Your task to perform on an android device: turn off sleep mode Image 0: 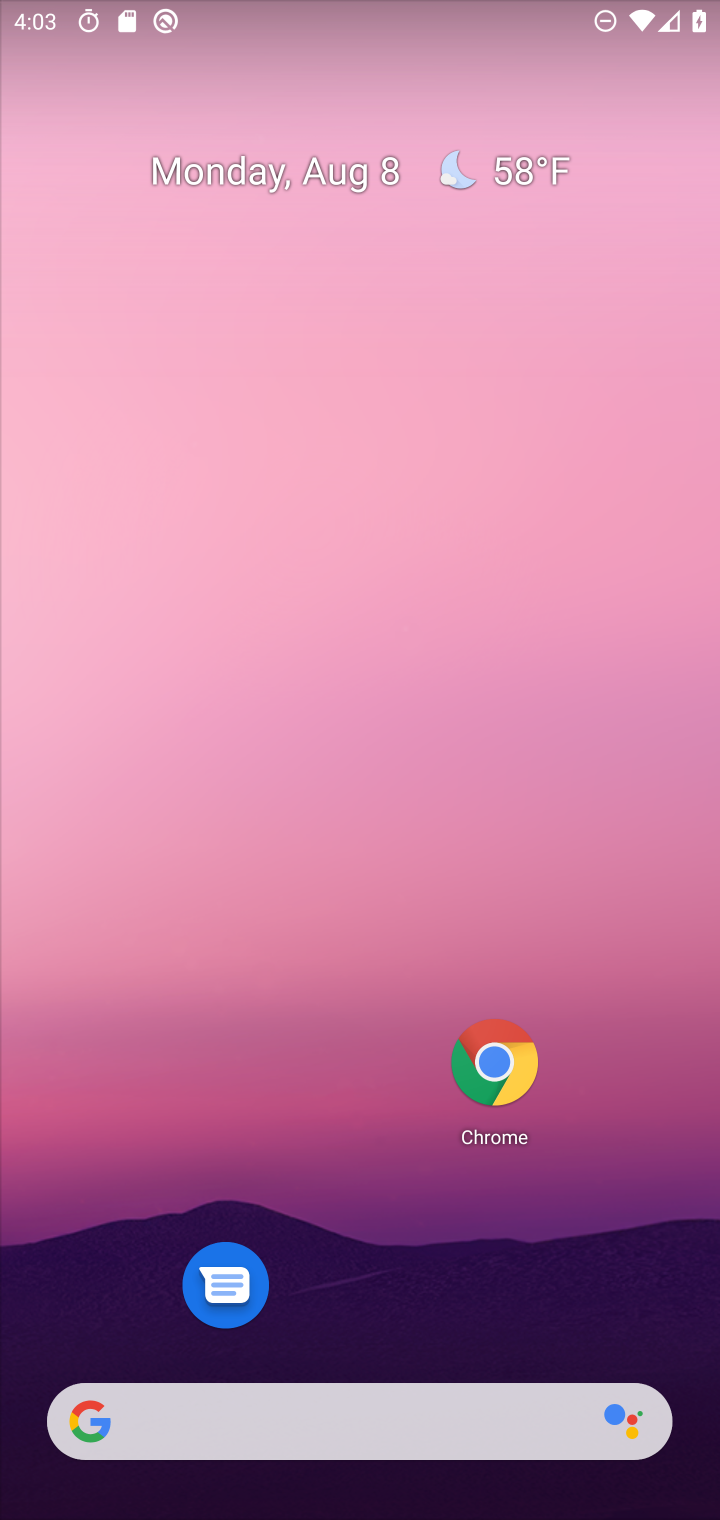
Step 0: drag from (363, 1040) to (310, 62)
Your task to perform on an android device: turn off sleep mode Image 1: 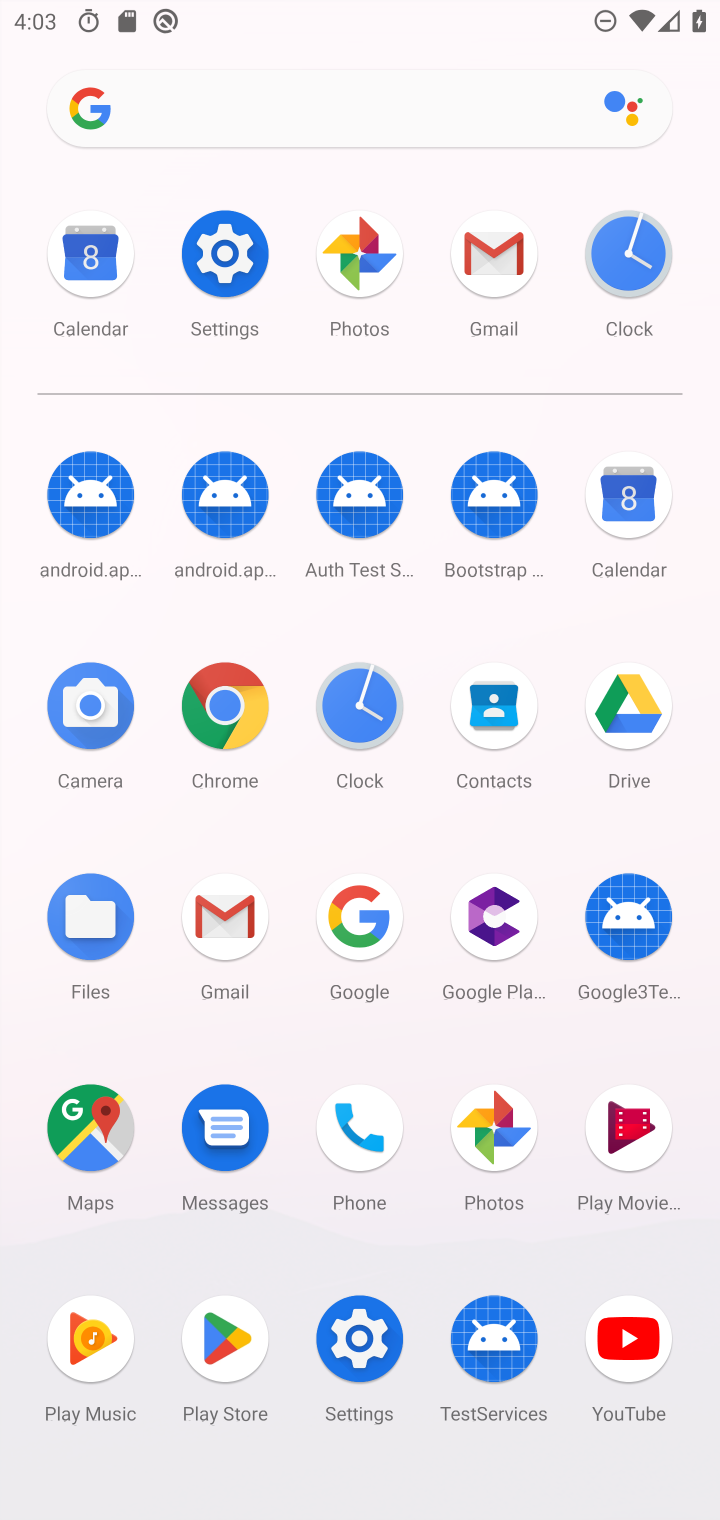
Step 1: click (222, 233)
Your task to perform on an android device: turn off sleep mode Image 2: 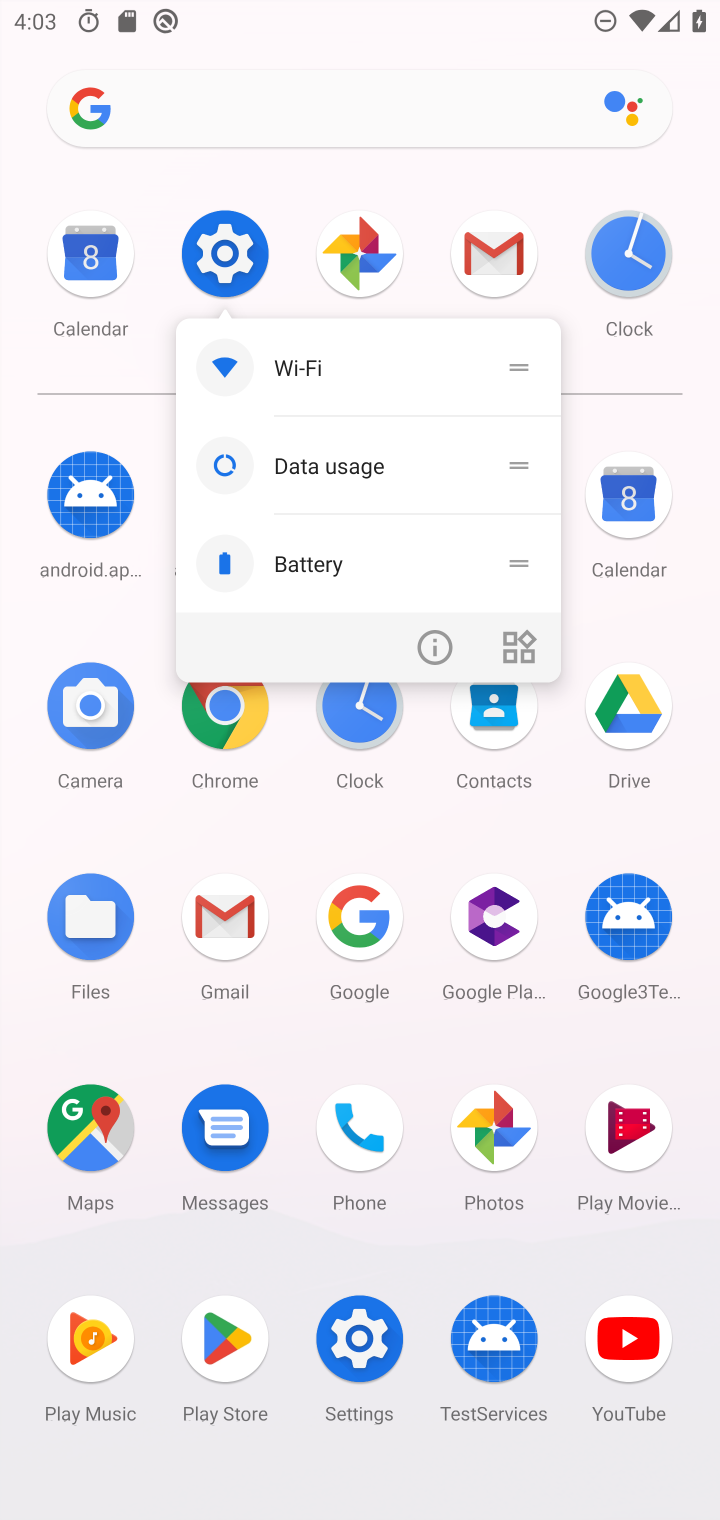
Step 2: click (224, 240)
Your task to perform on an android device: turn off sleep mode Image 3: 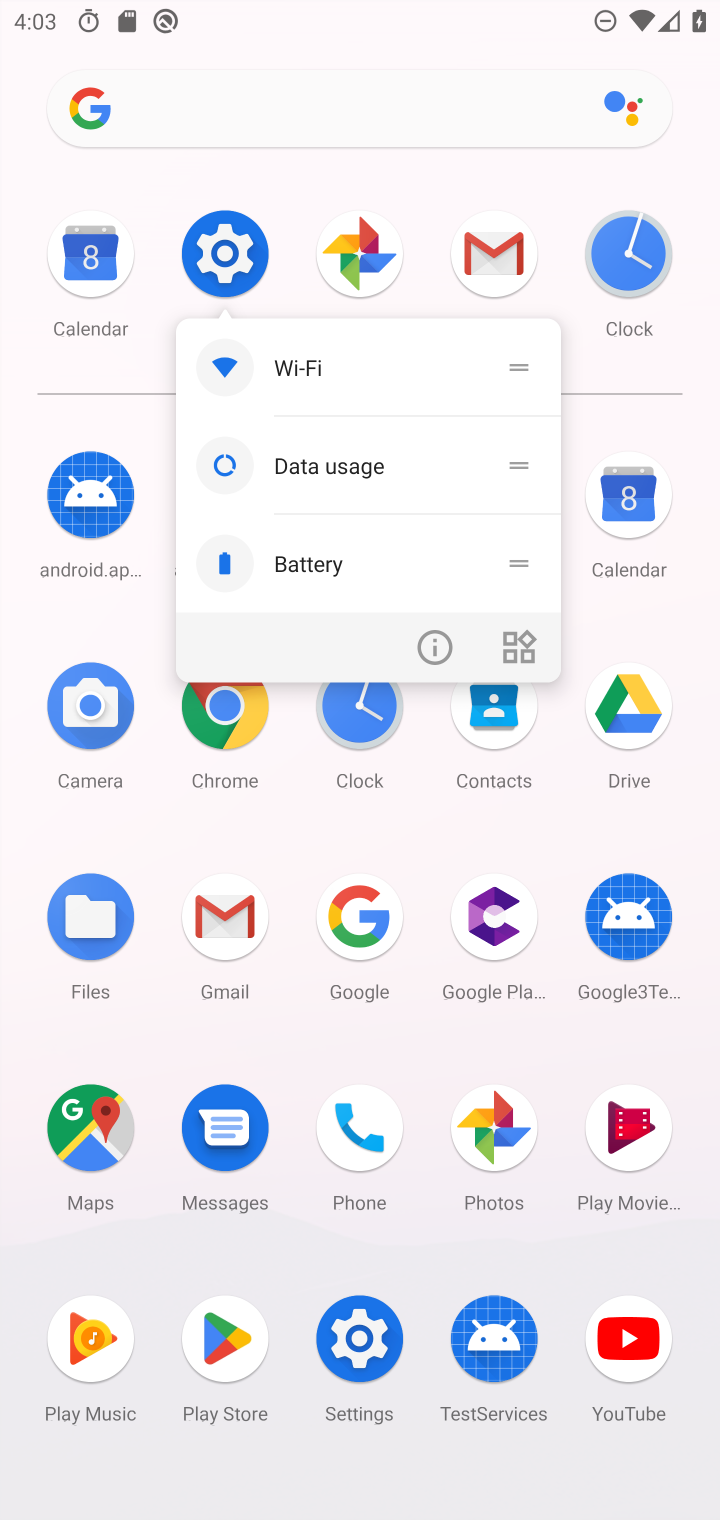
Step 3: click (226, 242)
Your task to perform on an android device: turn off sleep mode Image 4: 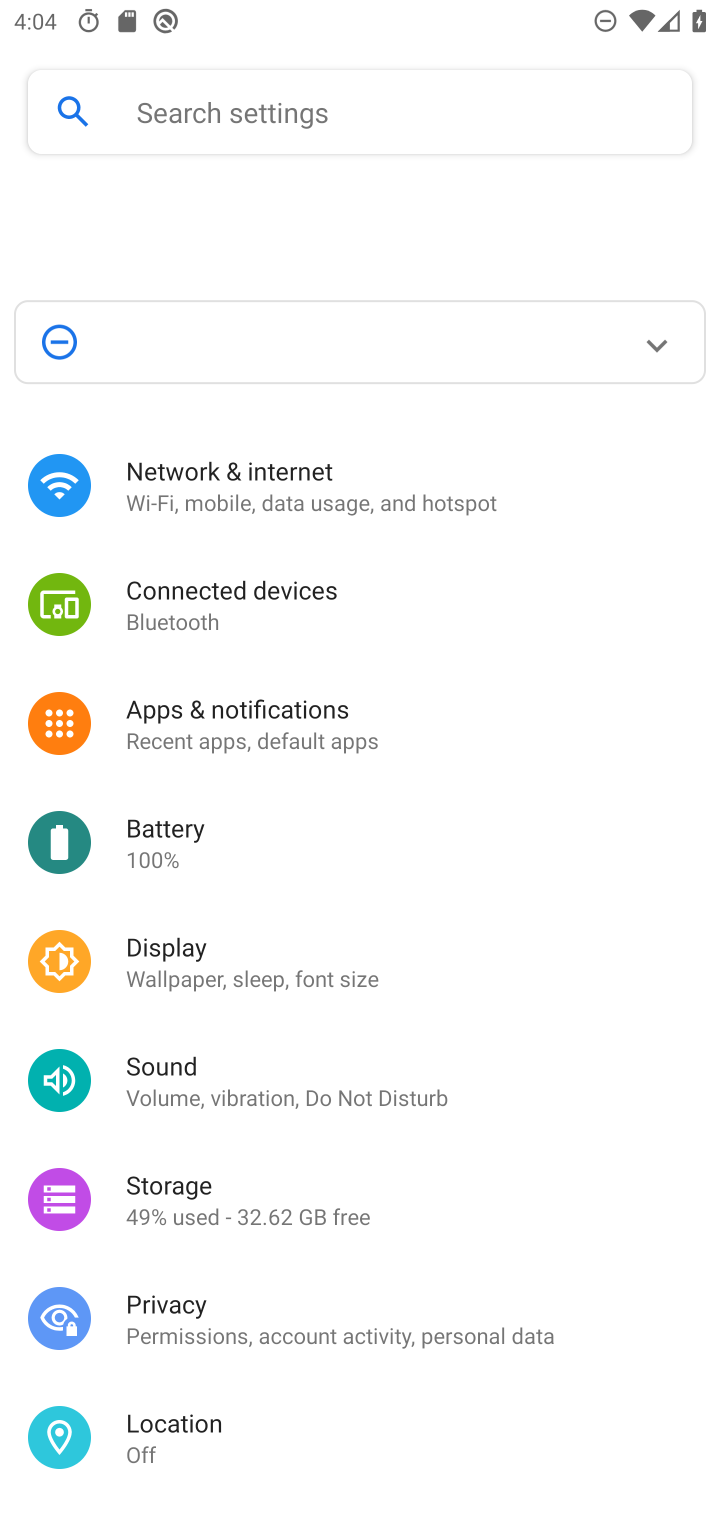
Step 4: click (357, 106)
Your task to perform on an android device: turn off sleep mode Image 5: 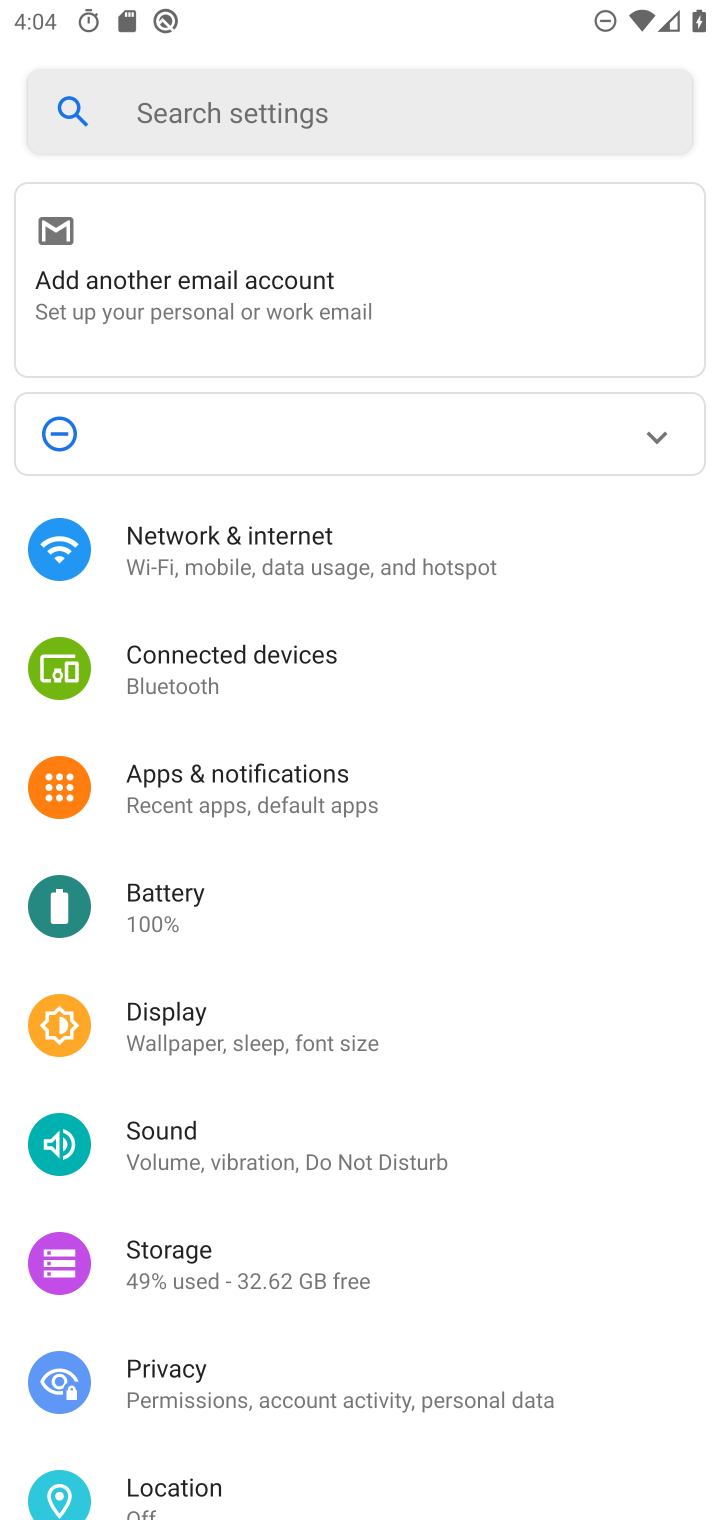
Step 5: press back button
Your task to perform on an android device: turn off sleep mode Image 6: 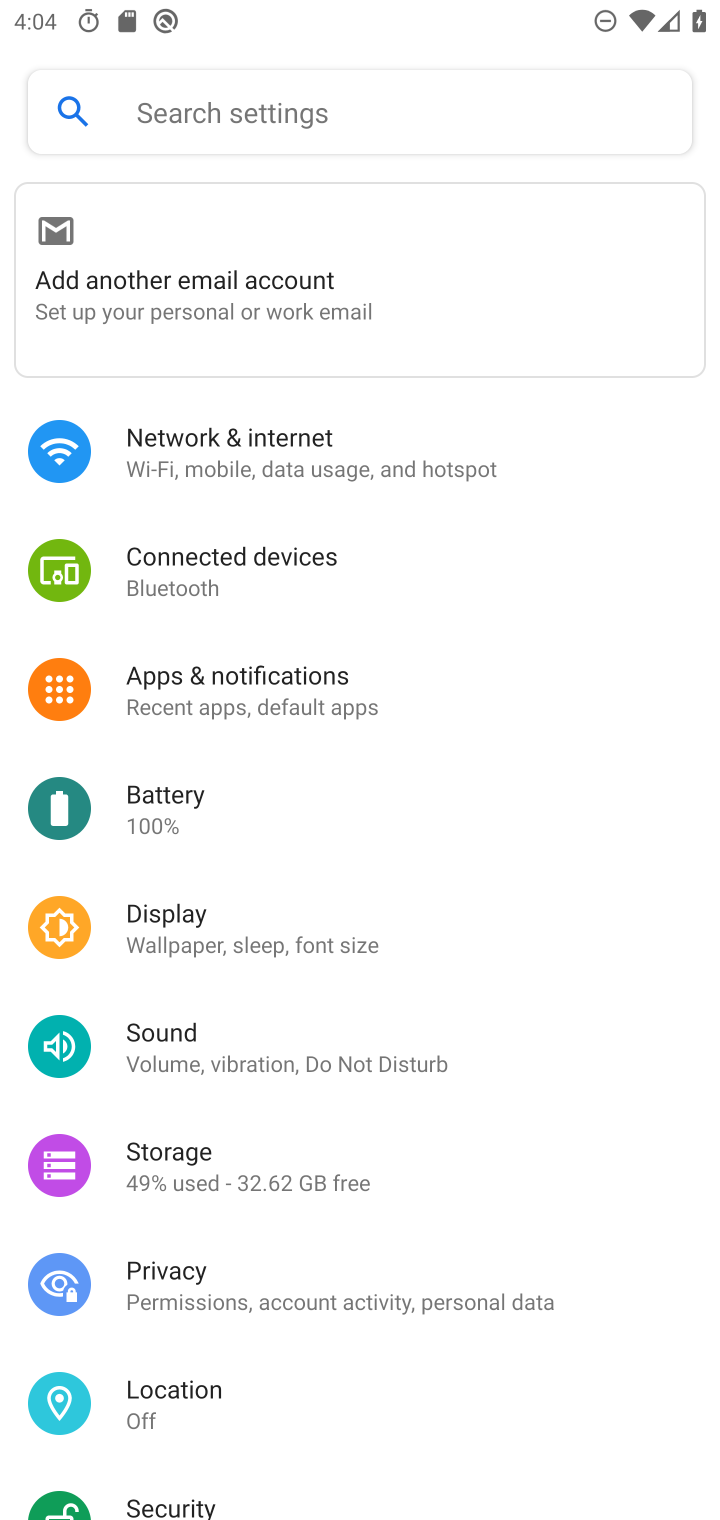
Step 6: press back button
Your task to perform on an android device: turn off sleep mode Image 7: 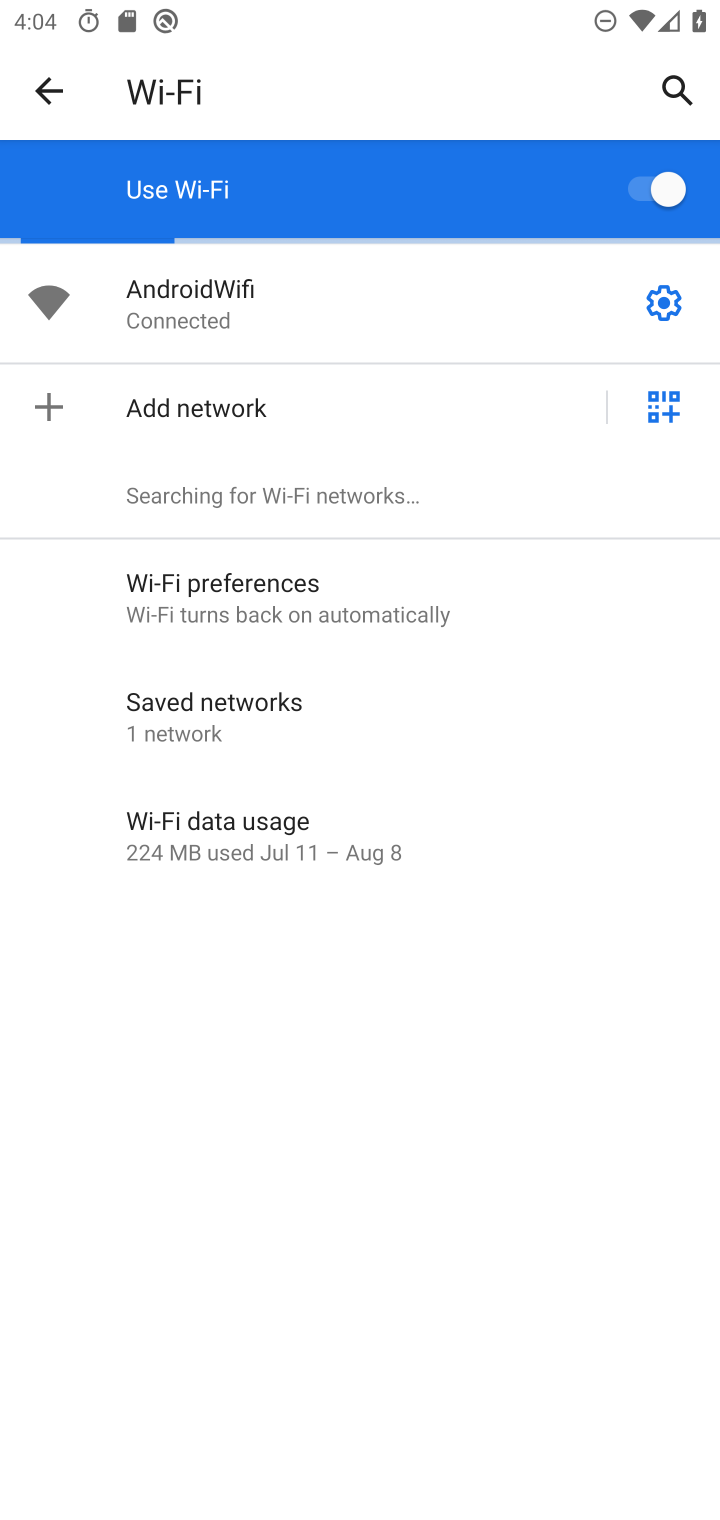
Step 7: click (17, 110)
Your task to perform on an android device: turn off sleep mode Image 8: 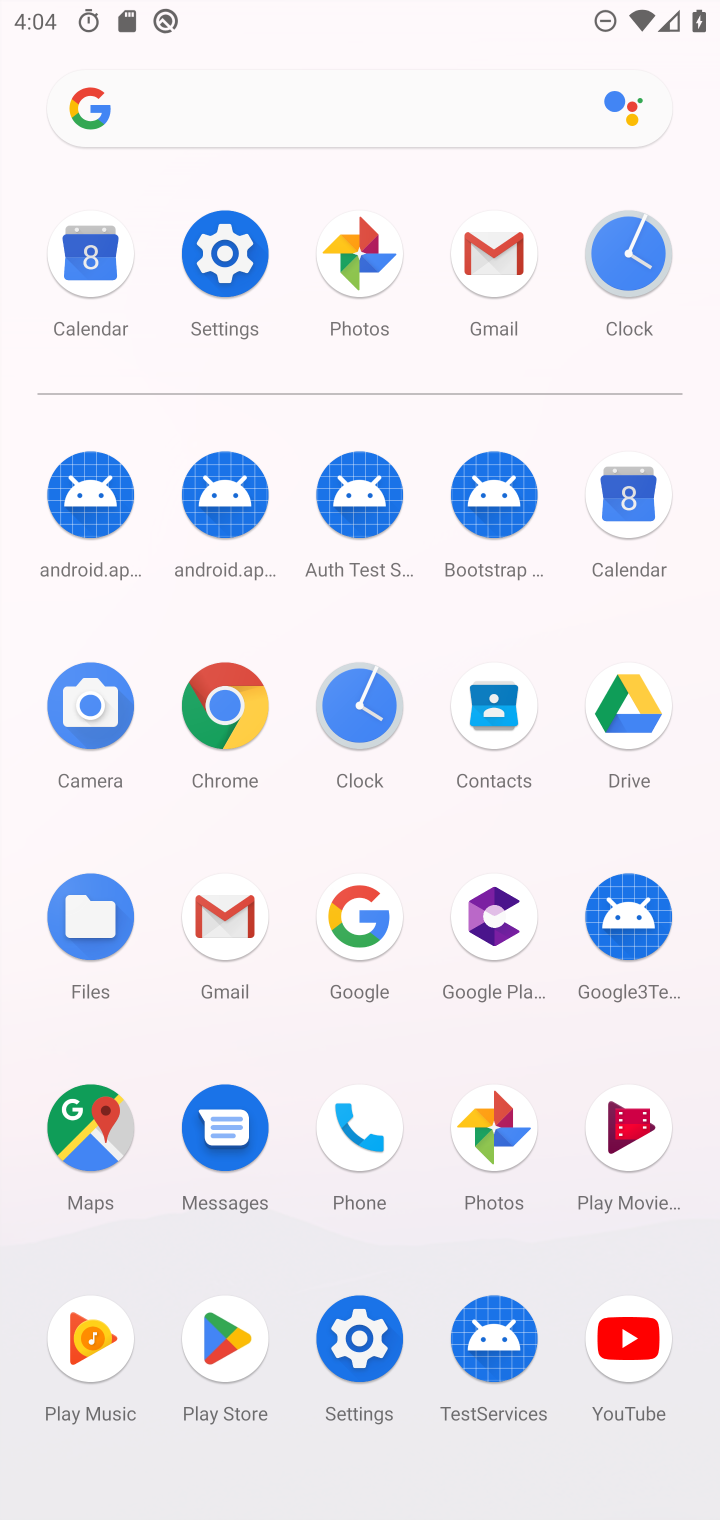
Step 8: click (323, 108)
Your task to perform on an android device: turn off sleep mode Image 9: 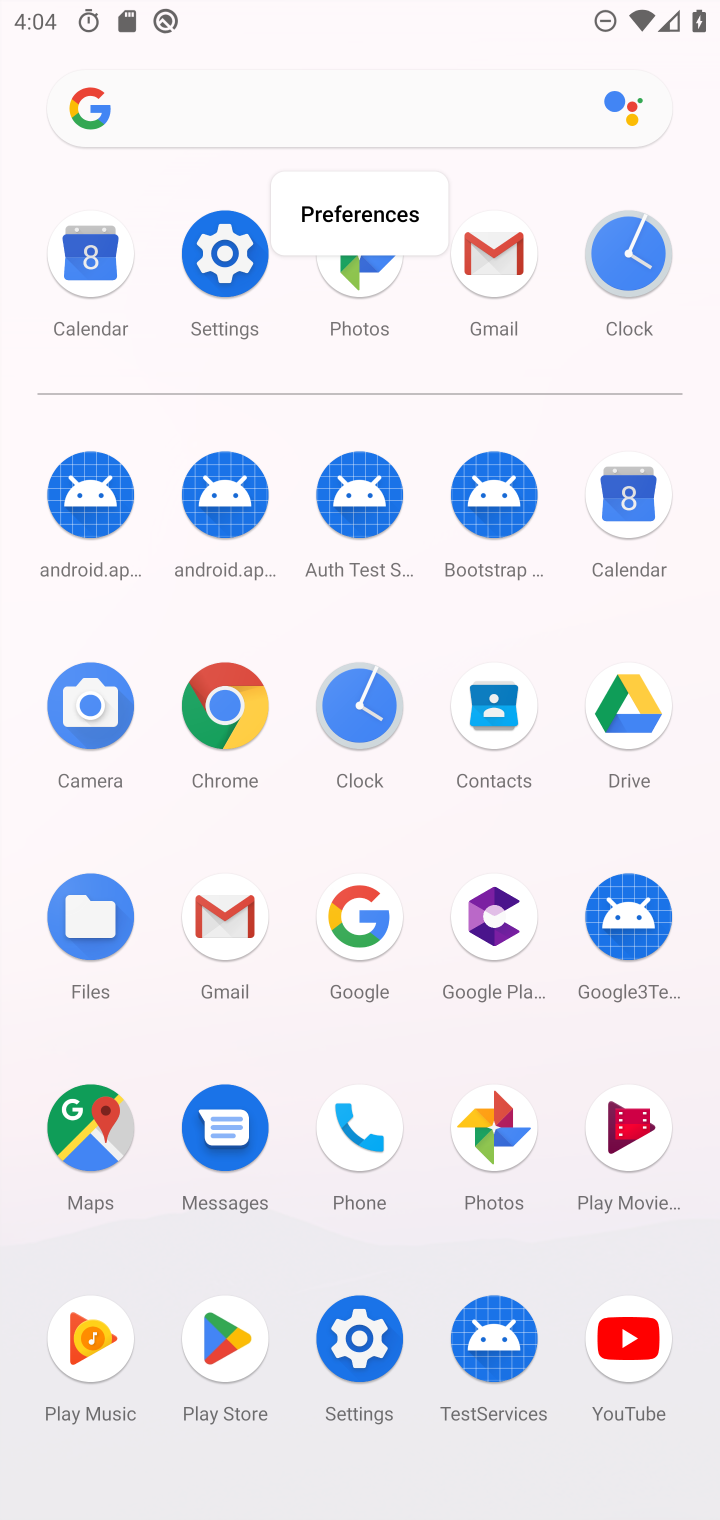
Step 9: click (235, 249)
Your task to perform on an android device: turn off sleep mode Image 10: 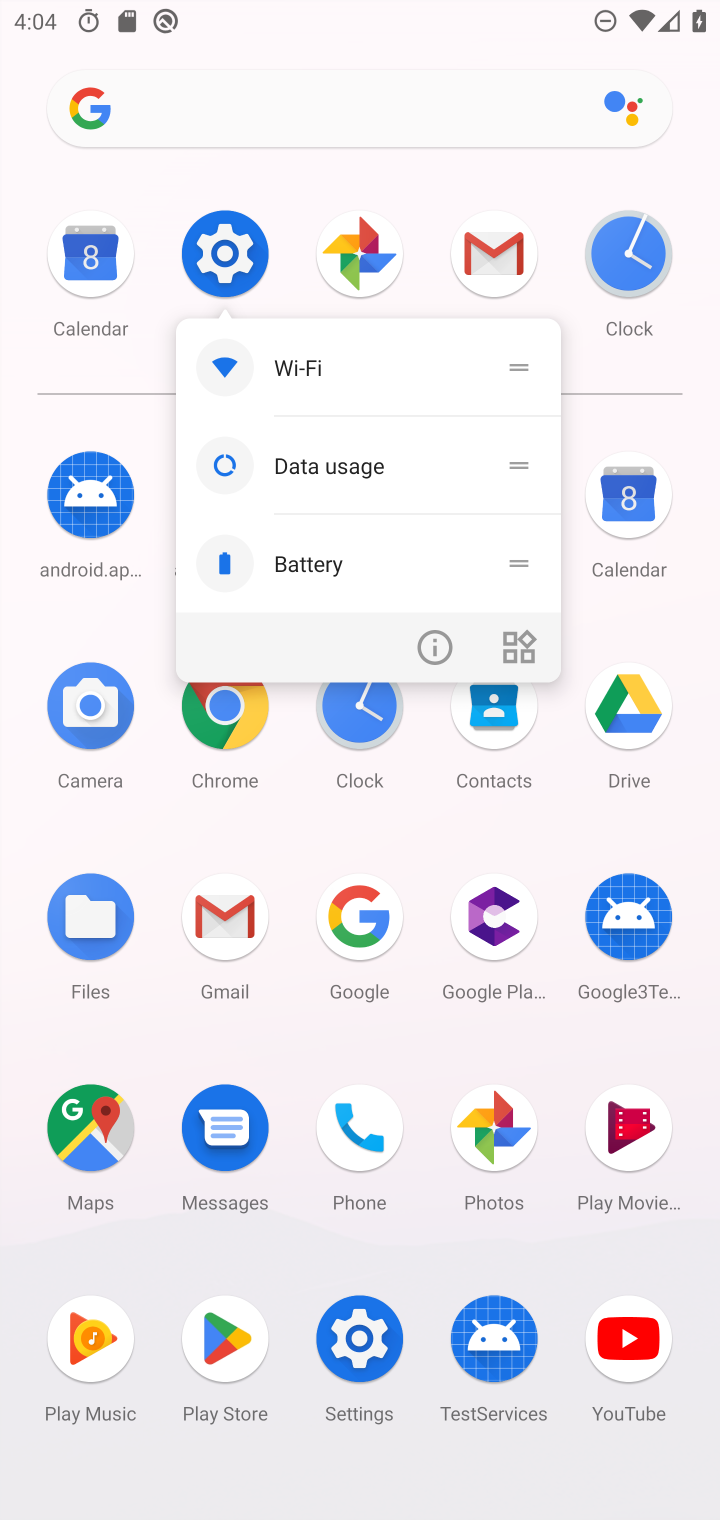
Step 10: click (229, 248)
Your task to perform on an android device: turn off sleep mode Image 11: 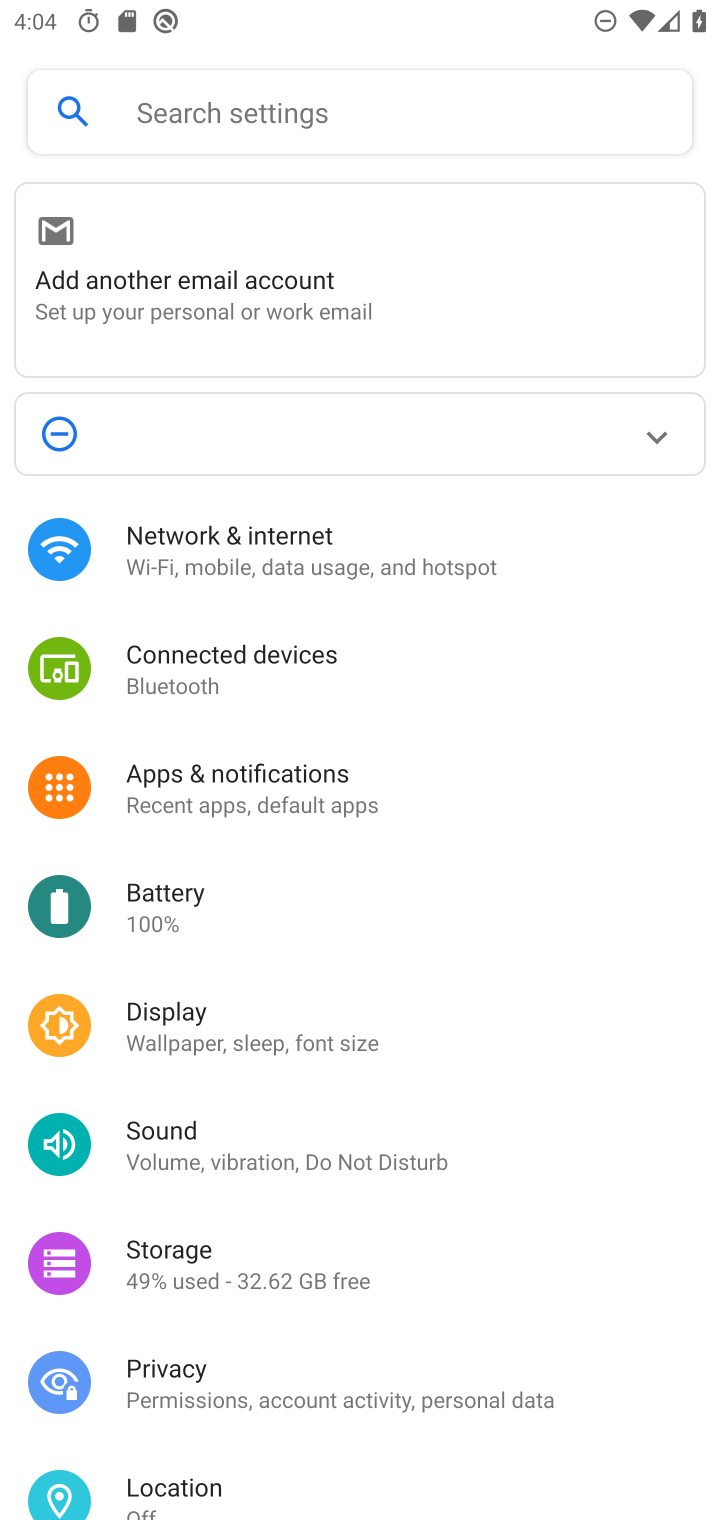
Step 11: click (251, 98)
Your task to perform on an android device: turn off sleep mode Image 12: 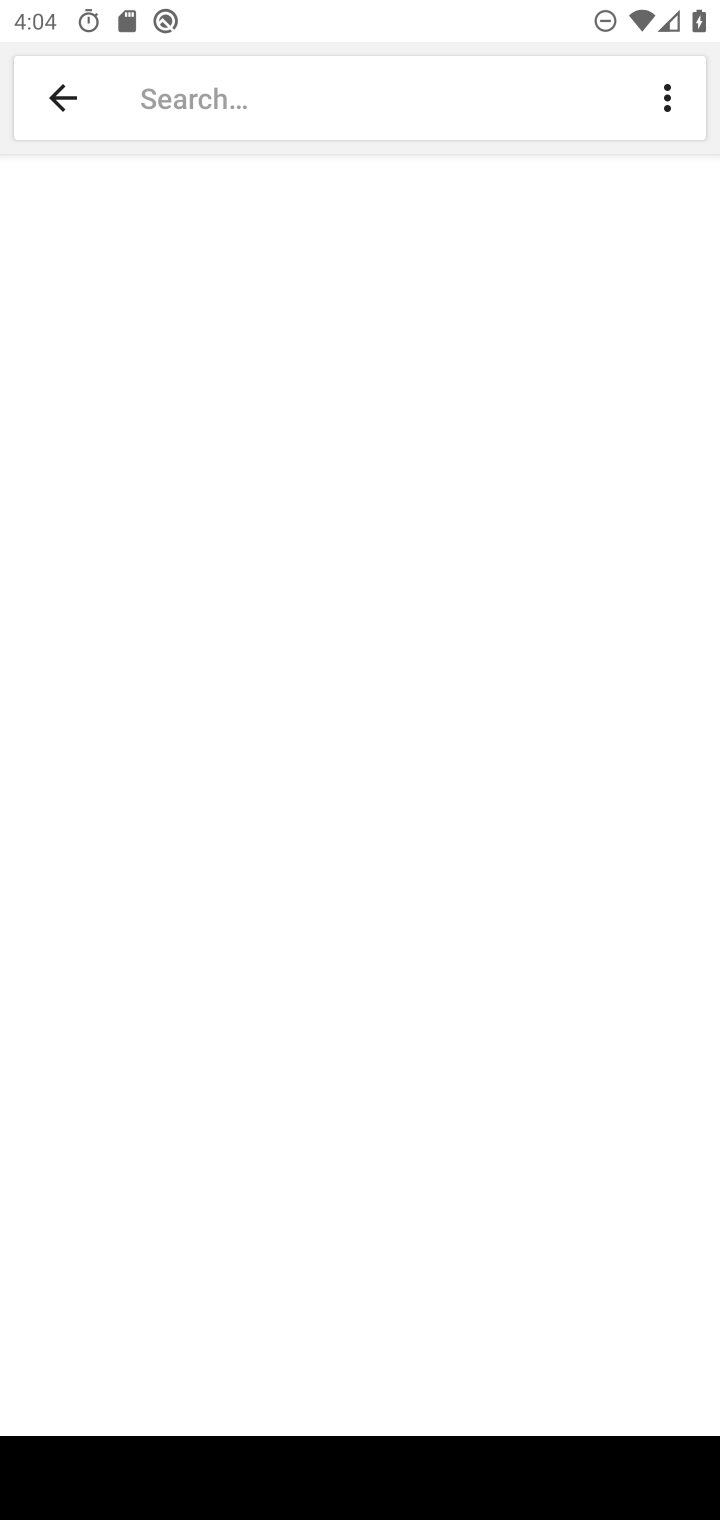
Step 12: type "sleep mode"
Your task to perform on an android device: turn off sleep mode Image 13: 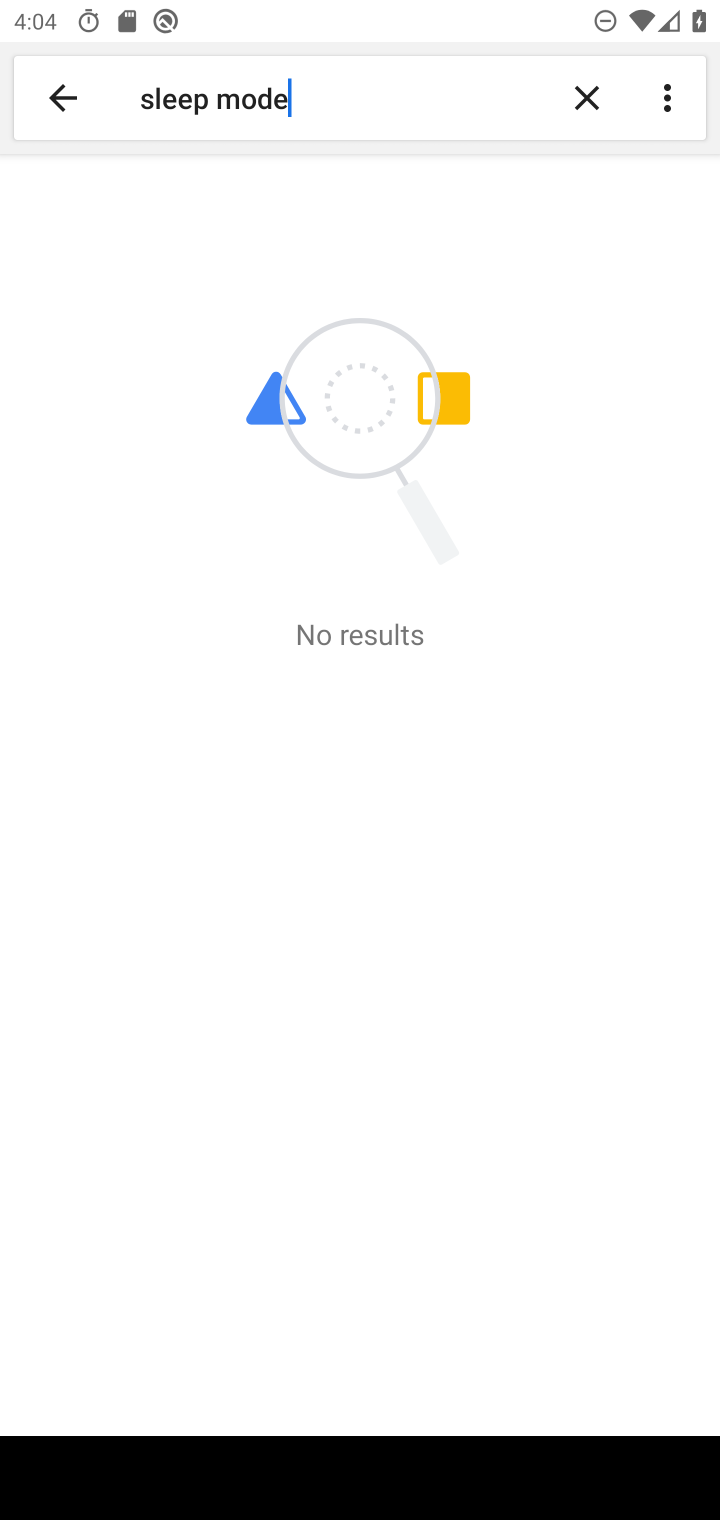
Step 13: task complete